Your task to perform on an android device: Go to sound settings Image 0: 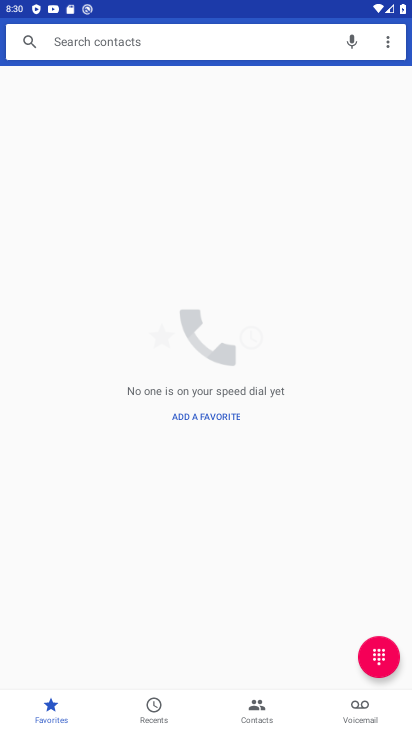
Step 0: press back button
Your task to perform on an android device: Go to sound settings Image 1: 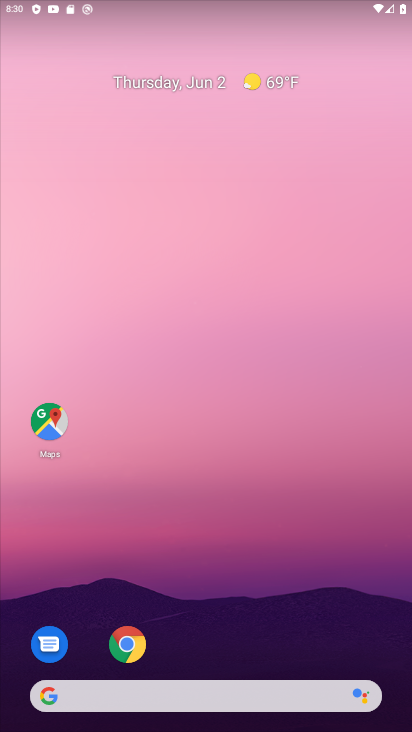
Step 1: drag from (280, 597) to (155, 37)
Your task to perform on an android device: Go to sound settings Image 2: 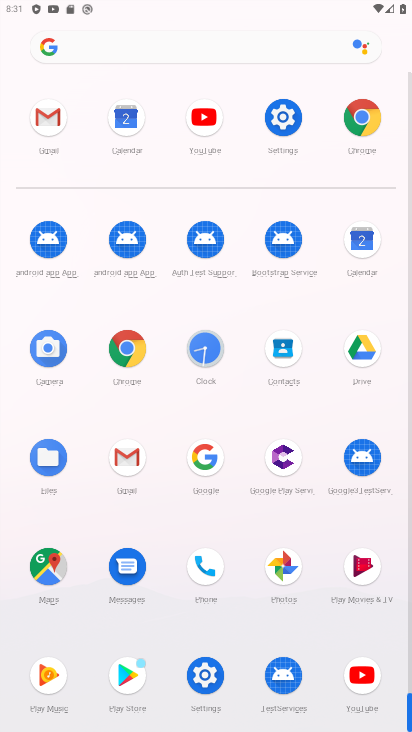
Step 2: click (202, 673)
Your task to perform on an android device: Go to sound settings Image 3: 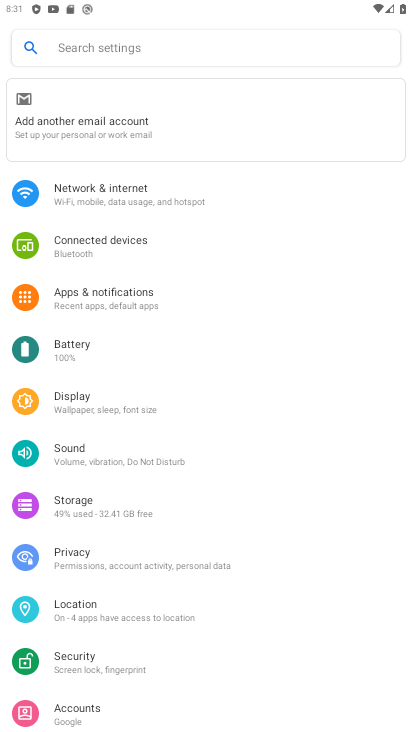
Step 3: click (125, 446)
Your task to perform on an android device: Go to sound settings Image 4: 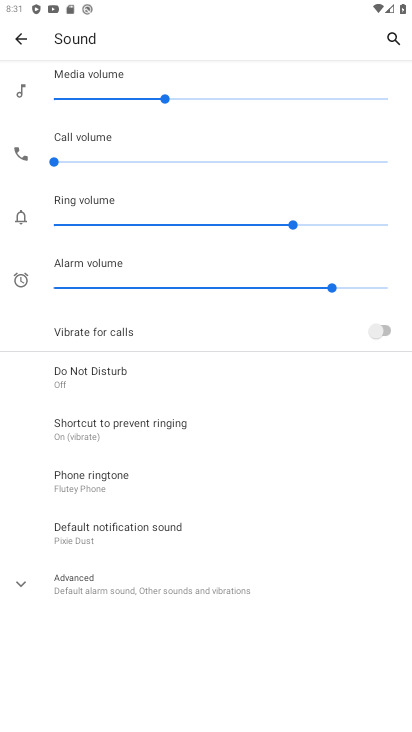
Step 4: task complete